Your task to perform on an android device: turn on bluetooth scan Image 0: 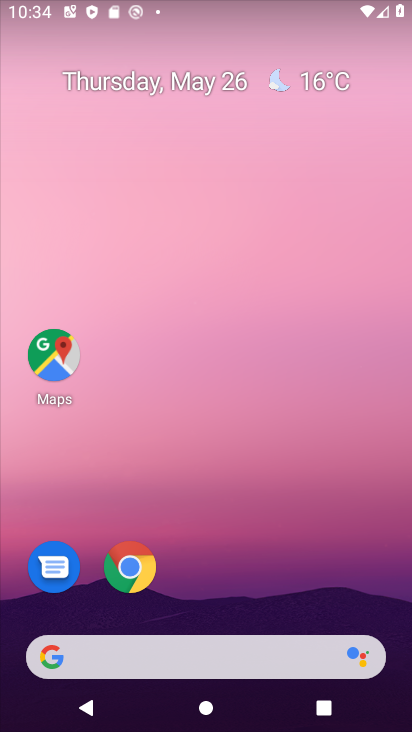
Step 0: press home button
Your task to perform on an android device: turn on bluetooth scan Image 1: 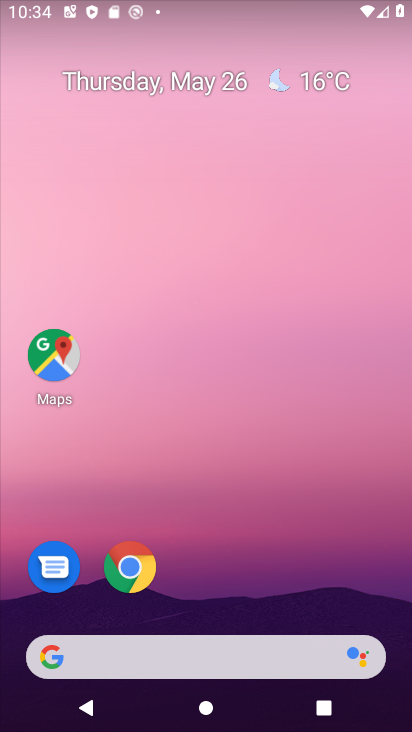
Step 1: drag from (237, 604) to (238, 268)
Your task to perform on an android device: turn on bluetooth scan Image 2: 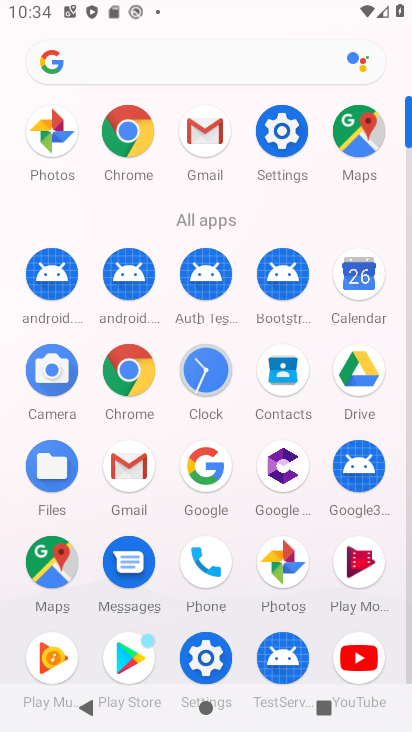
Step 2: click (279, 120)
Your task to perform on an android device: turn on bluetooth scan Image 3: 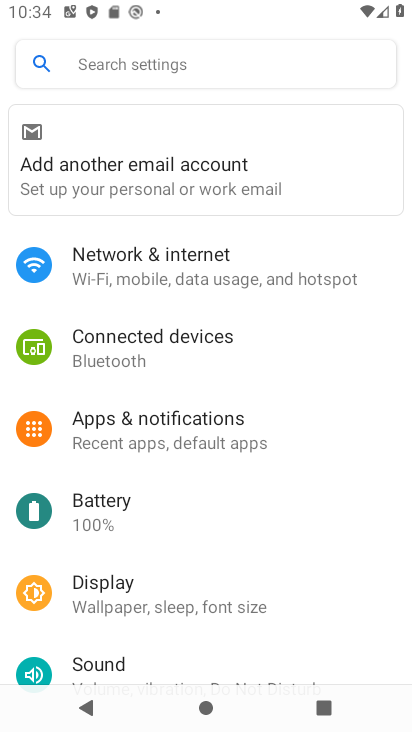
Step 3: drag from (238, 619) to (233, 216)
Your task to perform on an android device: turn on bluetooth scan Image 4: 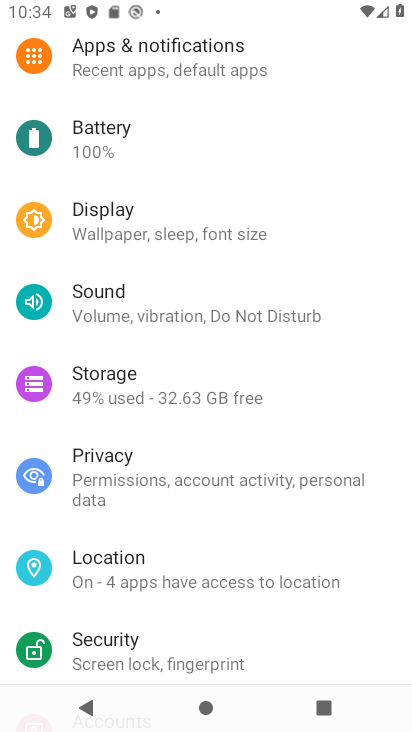
Step 4: click (155, 556)
Your task to perform on an android device: turn on bluetooth scan Image 5: 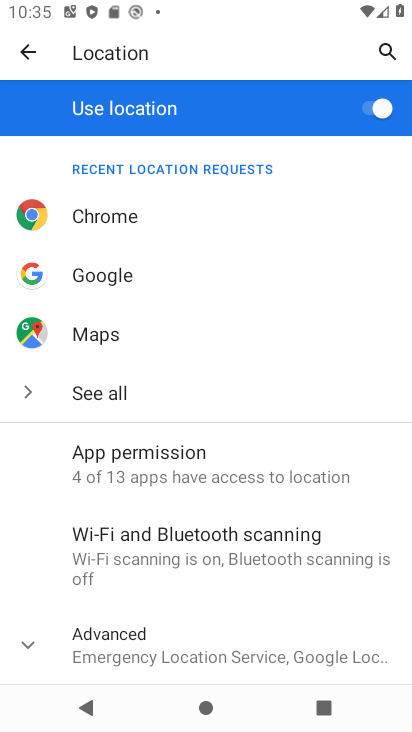
Step 5: click (331, 531)
Your task to perform on an android device: turn on bluetooth scan Image 6: 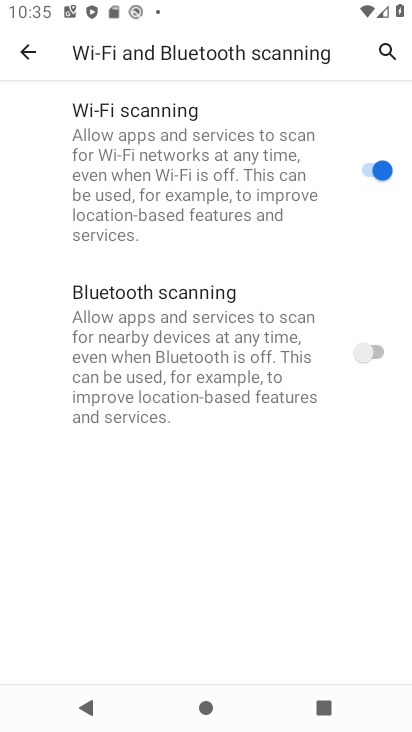
Step 6: click (374, 350)
Your task to perform on an android device: turn on bluetooth scan Image 7: 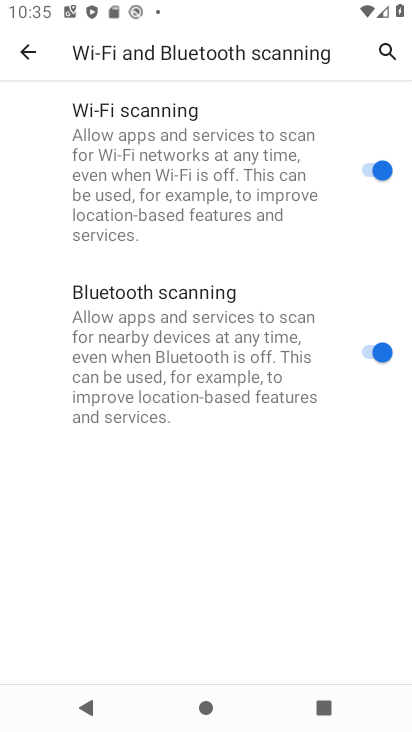
Step 7: task complete